Your task to perform on an android device: Open internet settings Image 0: 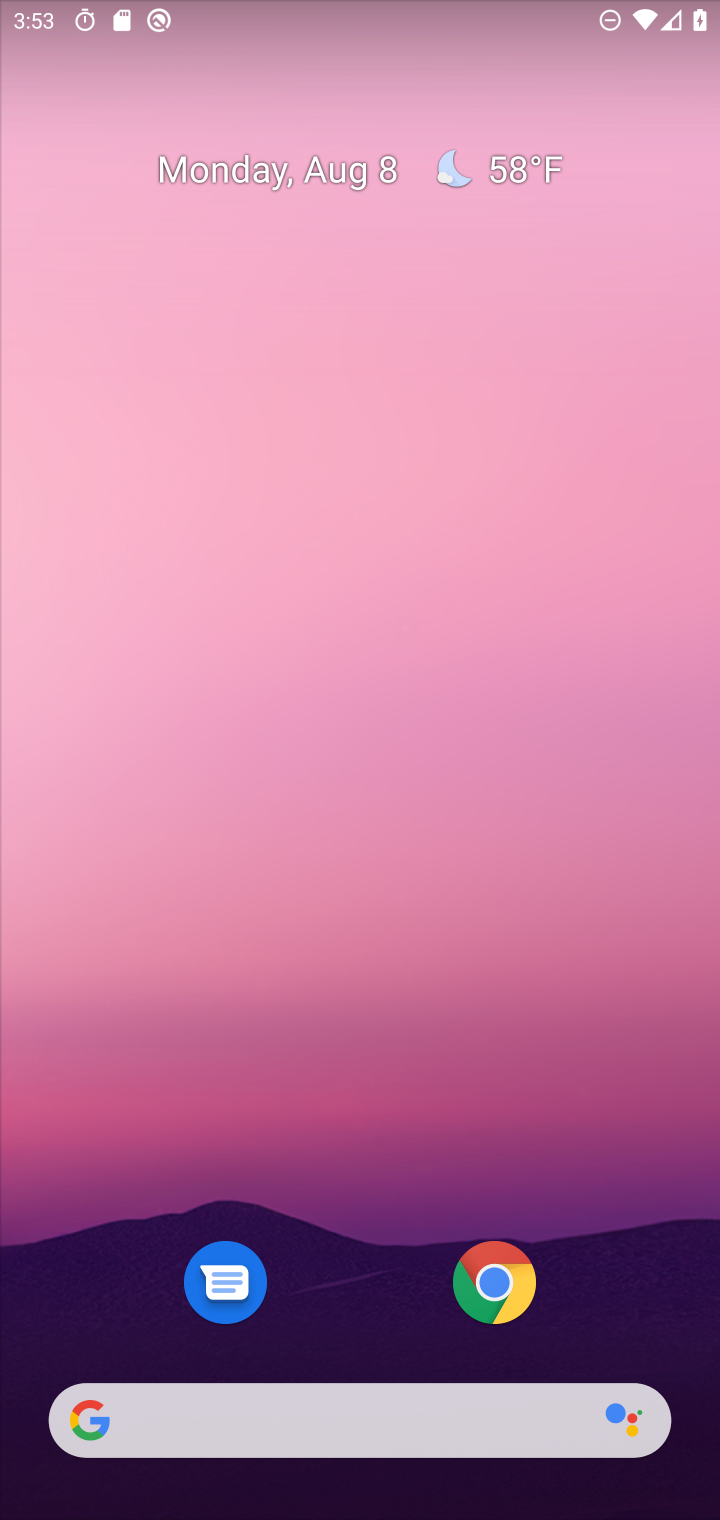
Step 0: drag from (391, 1310) to (506, 184)
Your task to perform on an android device: Open internet settings Image 1: 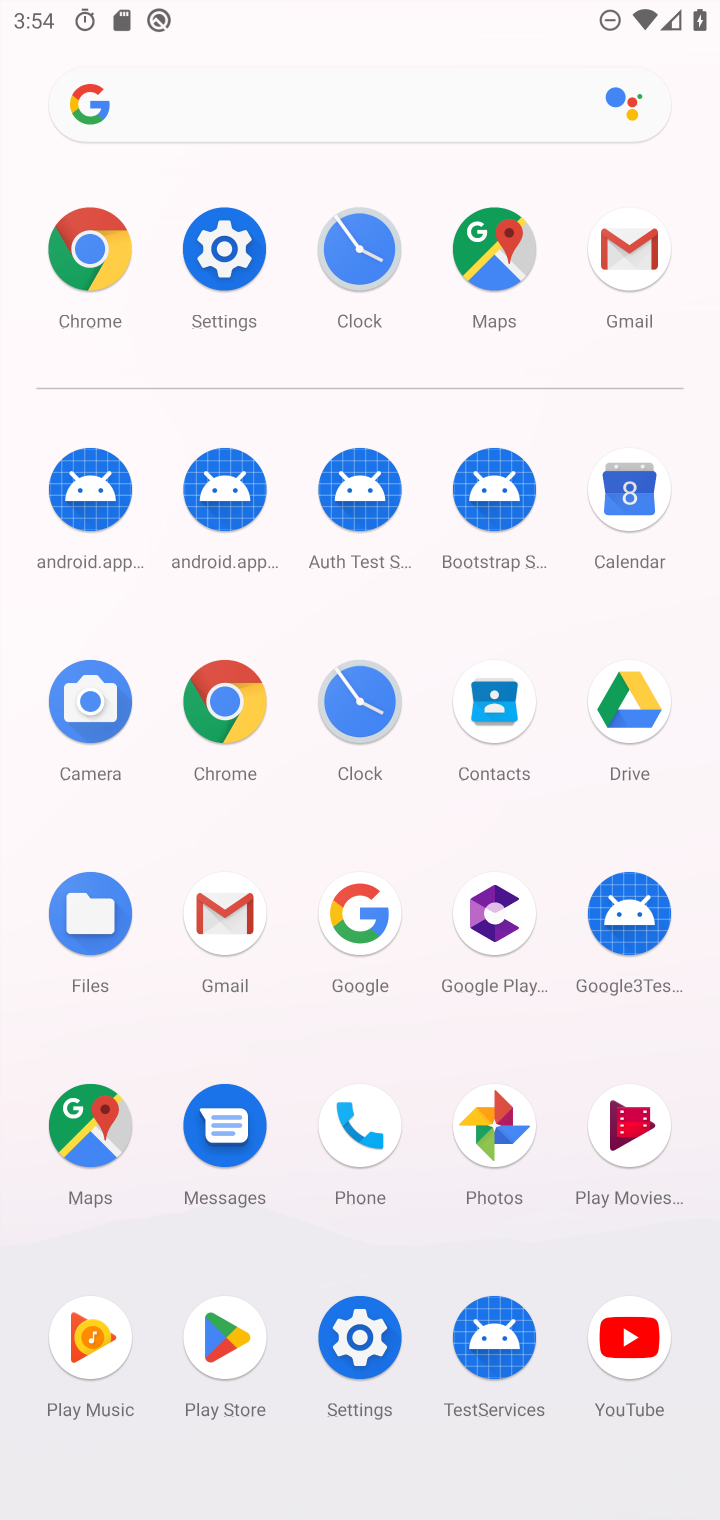
Step 1: click (333, 1329)
Your task to perform on an android device: Open internet settings Image 2: 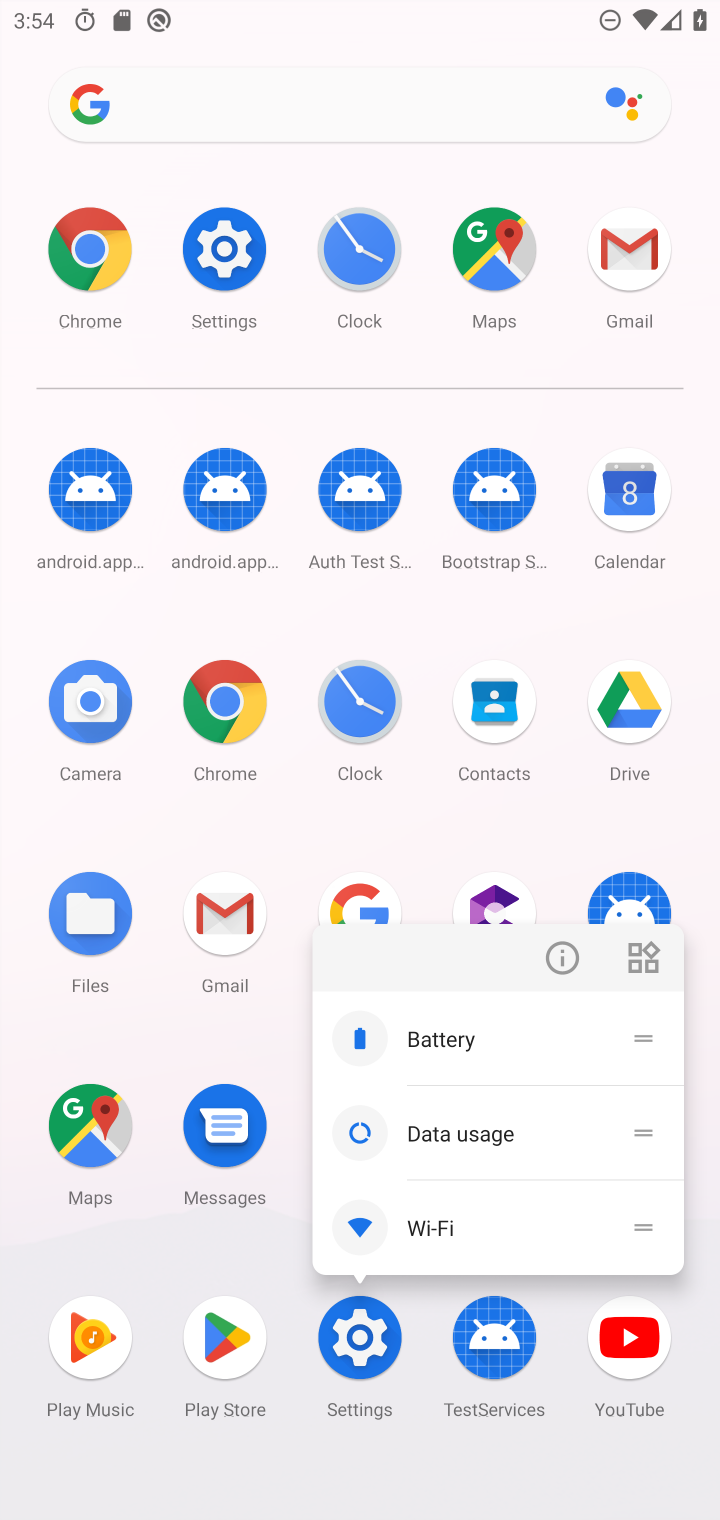
Step 2: click (367, 1333)
Your task to perform on an android device: Open internet settings Image 3: 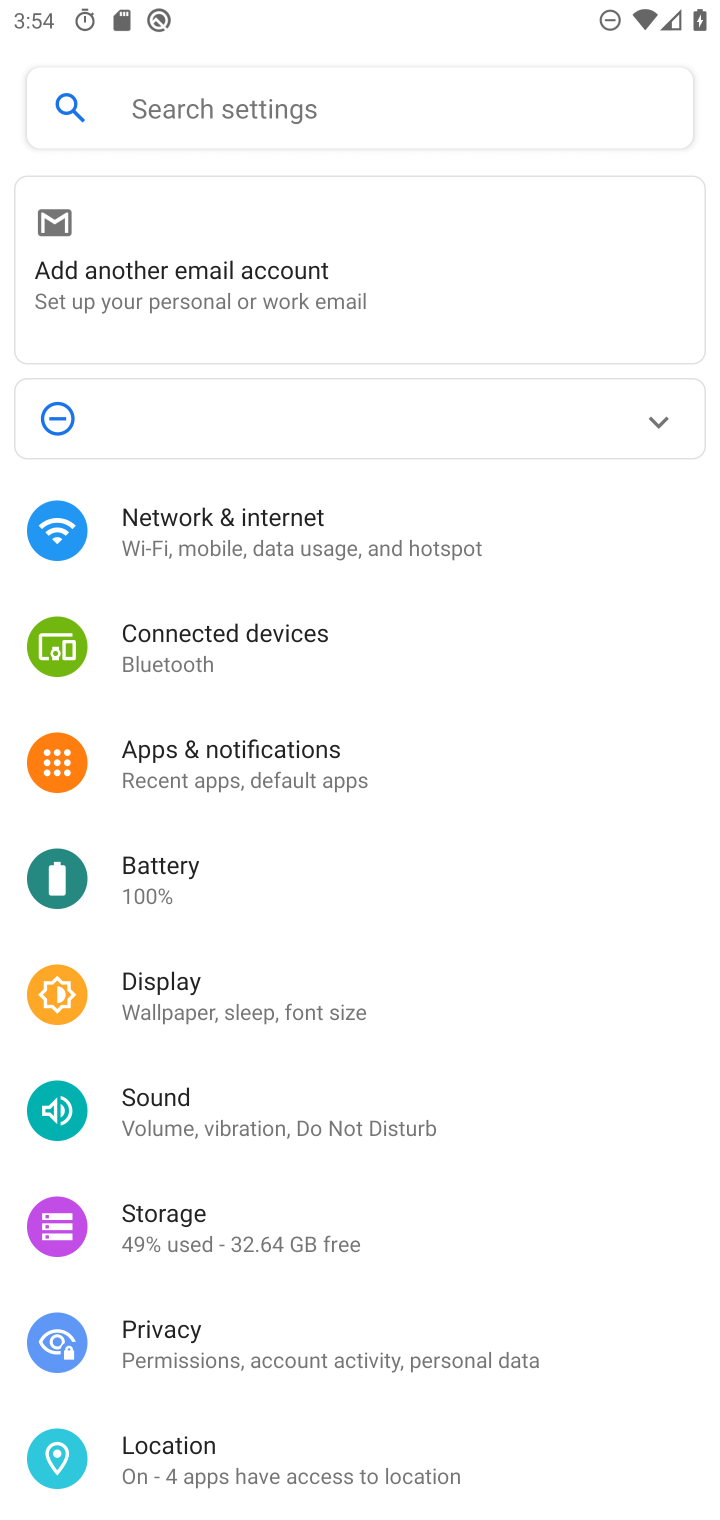
Step 3: click (296, 534)
Your task to perform on an android device: Open internet settings Image 4: 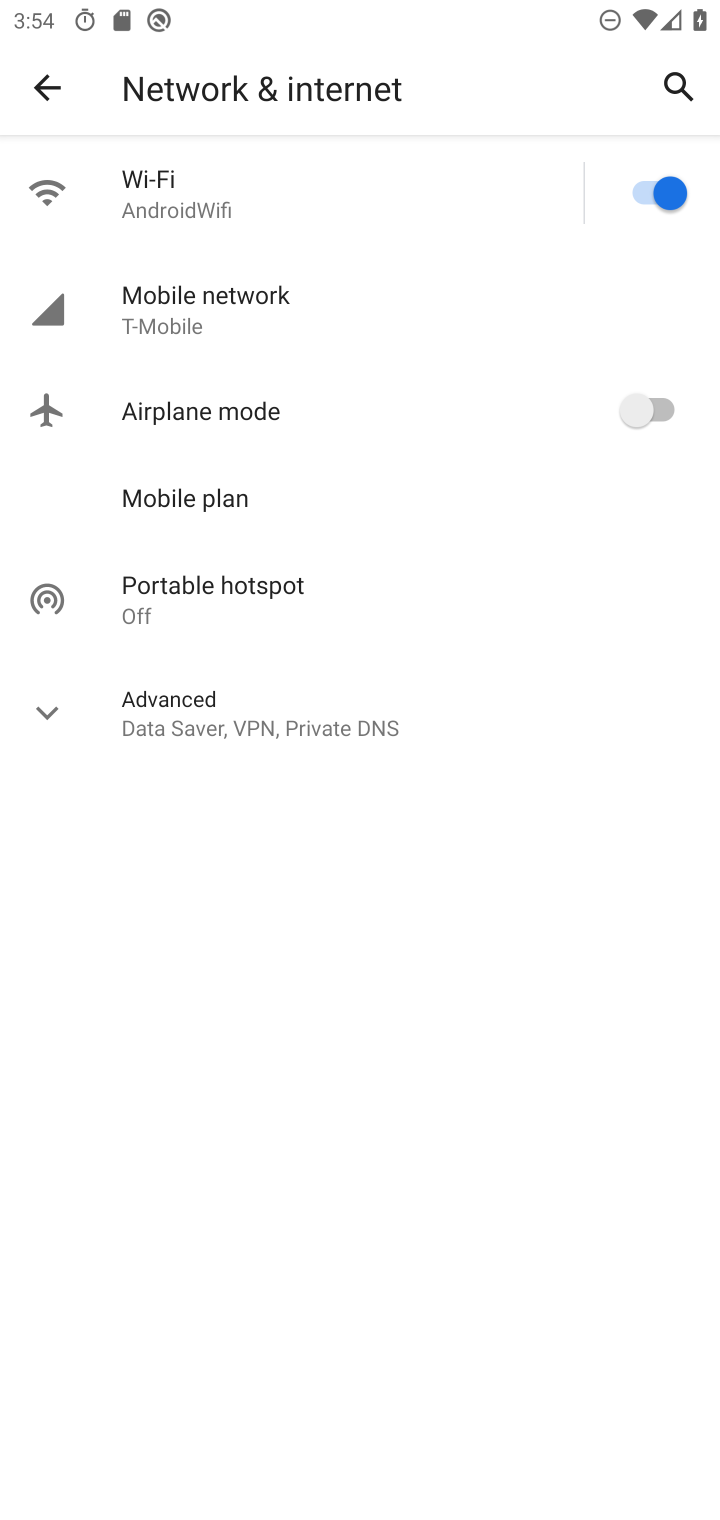
Step 4: task complete